Your task to perform on an android device: Go to Yahoo.com Image 0: 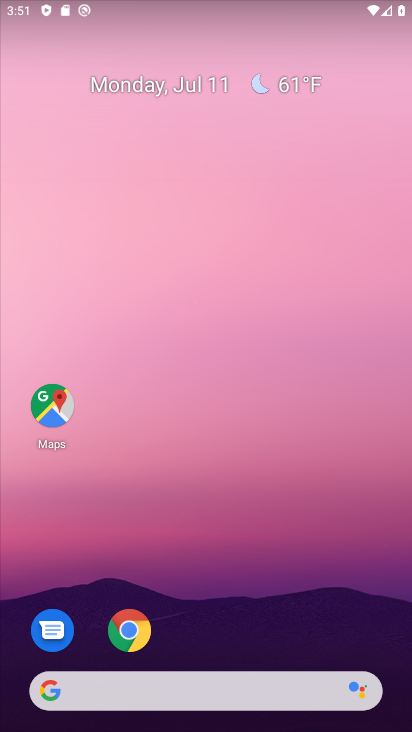
Step 0: click (128, 643)
Your task to perform on an android device: Go to Yahoo.com Image 1: 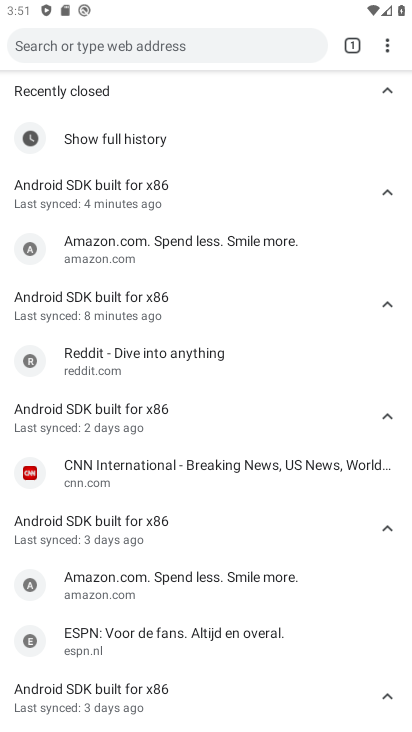
Step 1: press back button
Your task to perform on an android device: Go to Yahoo.com Image 2: 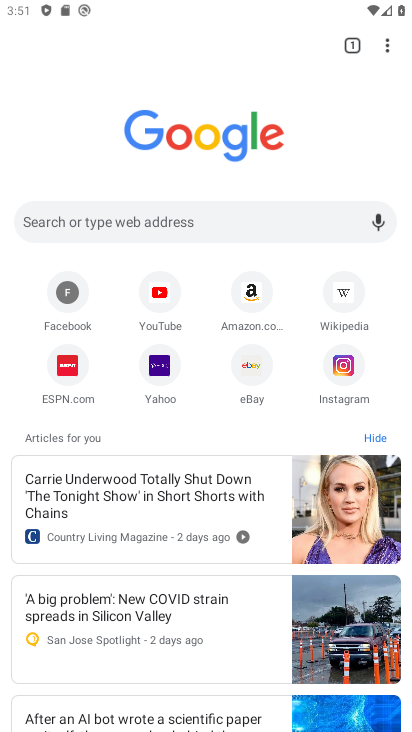
Step 2: click (156, 374)
Your task to perform on an android device: Go to Yahoo.com Image 3: 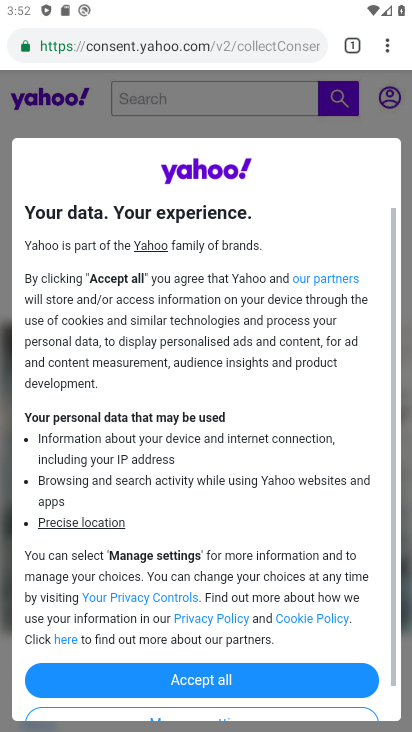
Step 3: click (198, 681)
Your task to perform on an android device: Go to Yahoo.com Image 4: 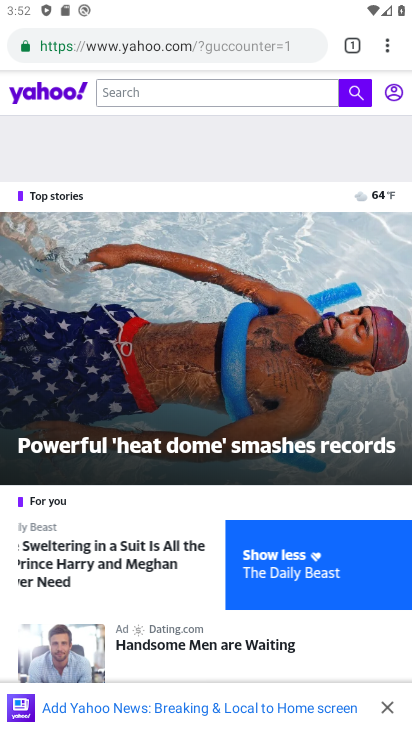
Step 4: task complete